Your task to perform on an android device: Go to Yahoo.com Image 0: 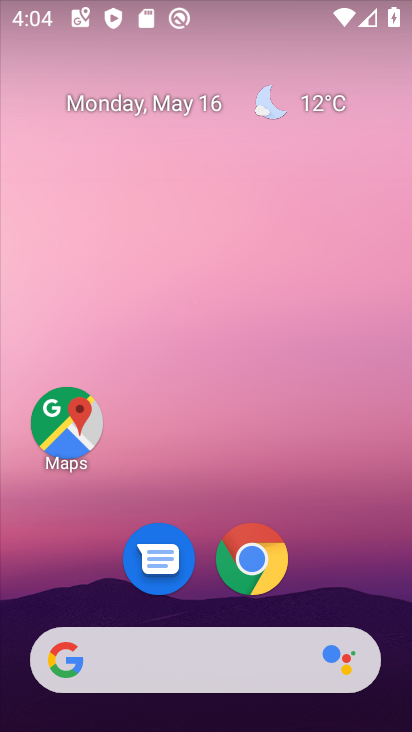
Step 0: click (258, 563)
Your task to perform on an android device: Go to Yahoo.com Image 1: 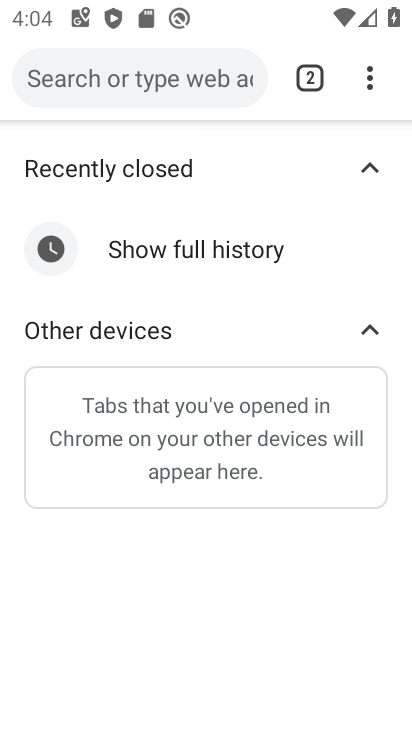
Step 1: click (215, 73)
Your task to perform on an android device: Go to Yahoo.com Image 2: 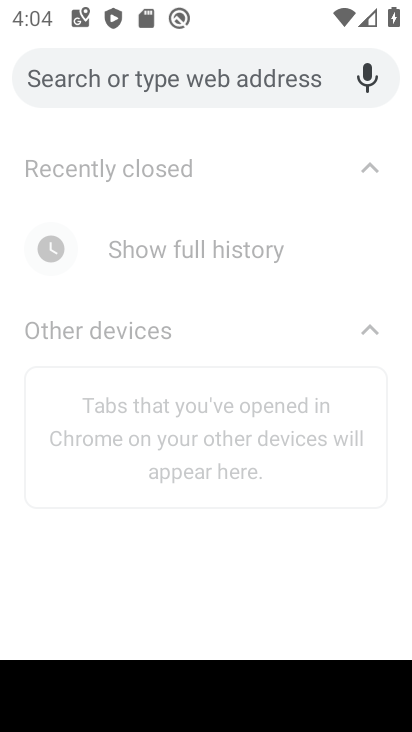
Step 2: type "yahoo.com"
Your task to perform on an android device: Go to Yahoo.com Image 3: 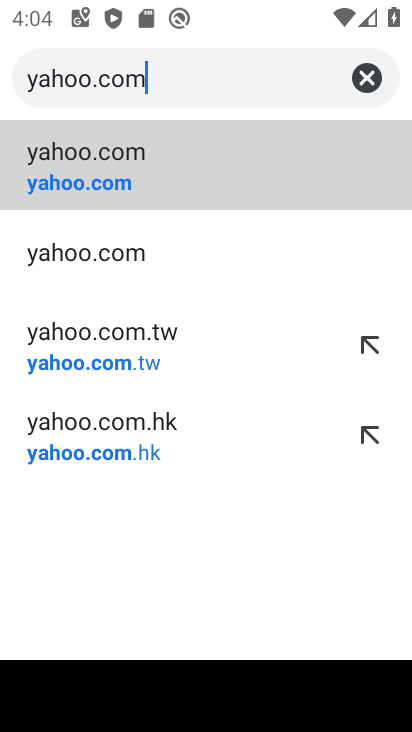
Step 3: click (107, 181)
Your task to perform on an android device: Go to Yahoo.com Image 4: 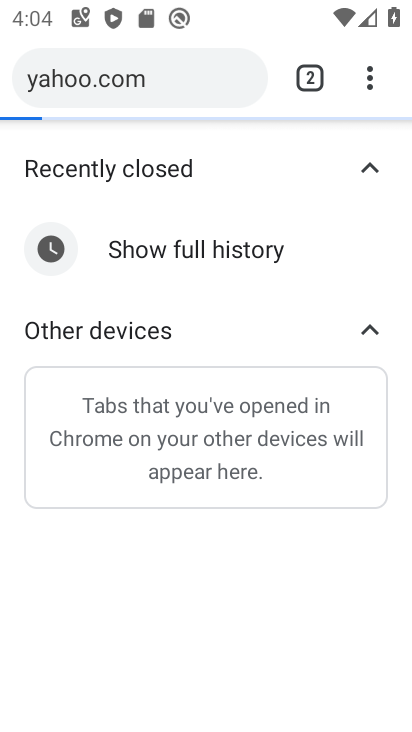
Step 4: task complete